Your task to perform on an android device: Open internet settings Image 0: 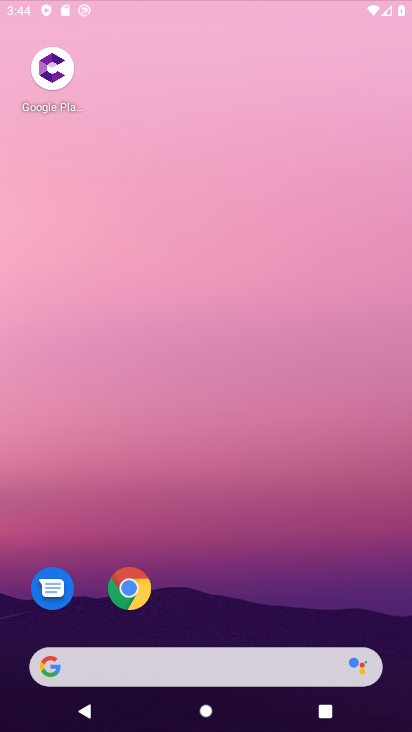
Step 0: drag from (218, 388) to (220, 62)
Your task to perform on an android device: Open internet settings Image 1: 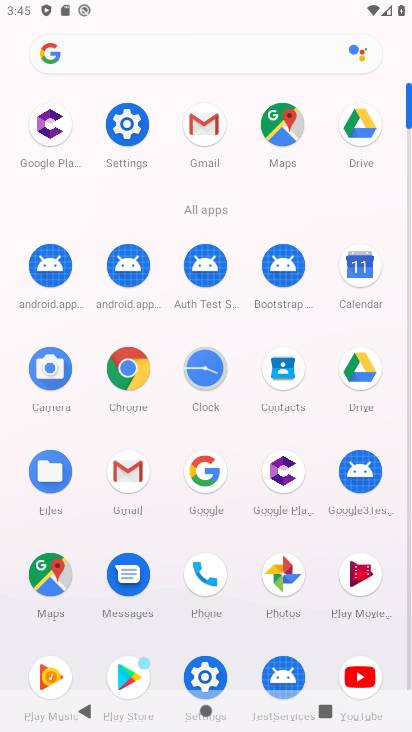
Step 1: click (128, 113)
Your task to perform on an android device: Open internet settings Image 2: 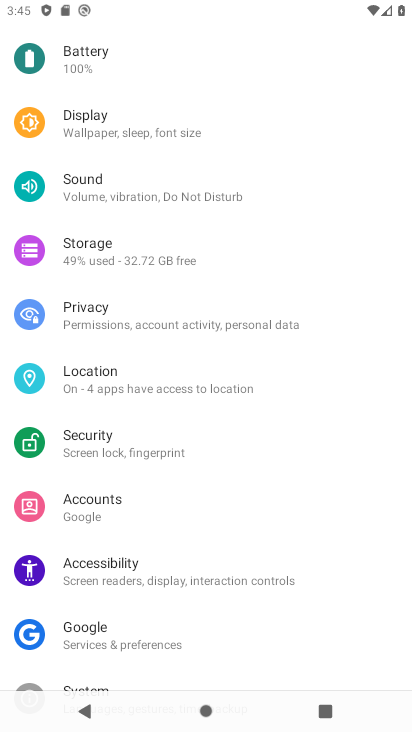
Step 2: drag from (180, 99) to (167, 492)
Your task to perform on an android device: Open internet settings Image 3: 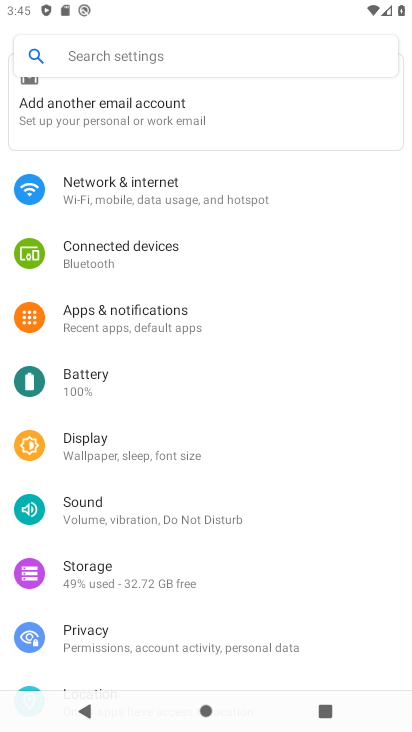
Step 3: click (169, 199)
Your task to perform on an android device: Open internet settings Image 4: 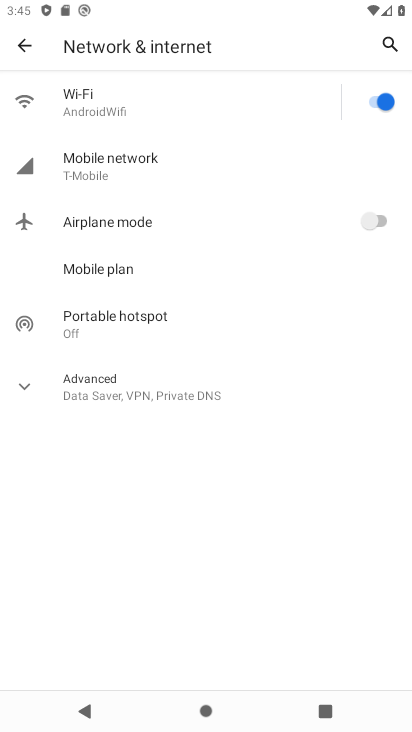
Step 4: click (128, 164)
Your task to perform on an android device: Open internet settings Image 5: 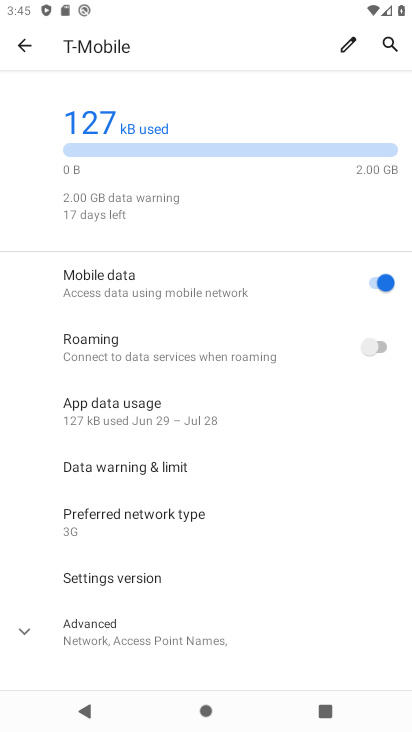
Step 5: task complete